Your task to perform on an android device: set the timer Image 0: 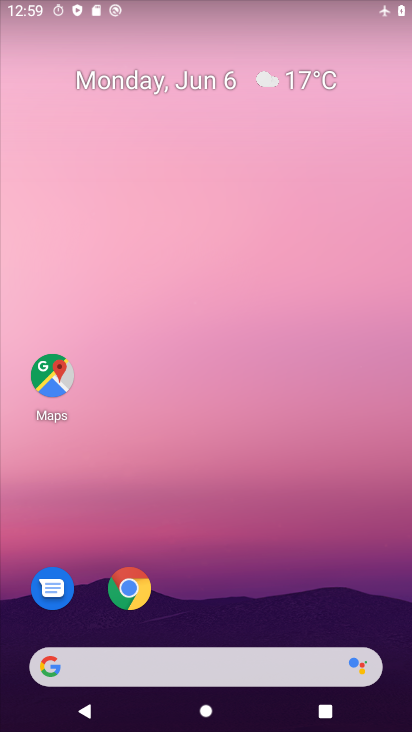
Step 0: drag from (268, 321) to (271, 8)
Your task to perform on an android device: set the timer Image 1: 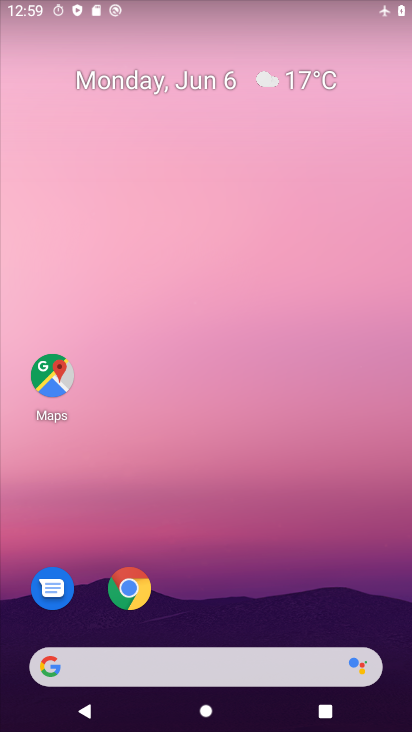
Step 1: drag from (234, 554) to (294, 150)
Your task to perform on an android device: set the timer Image 2: 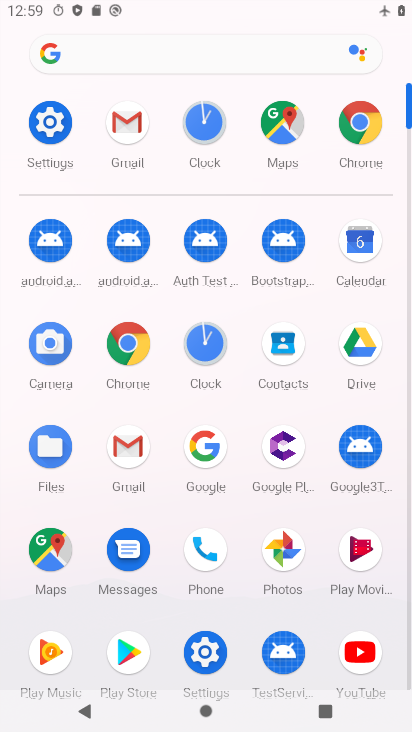
Step 2: click (204, 347)
Your task to perform on an android device: set the timer Image 3: 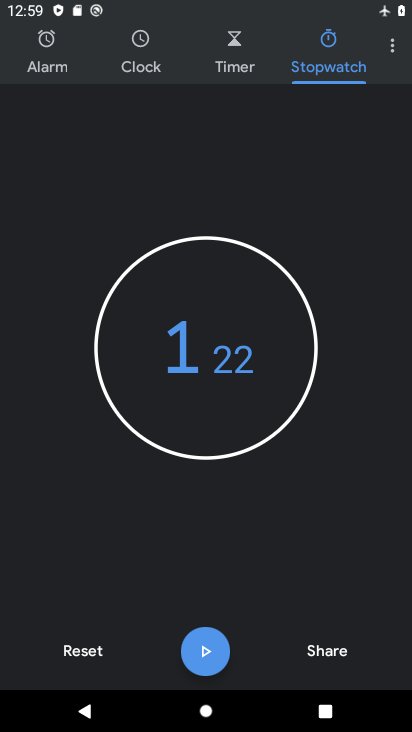
Step 3: click (252, 39)
Your task to perform on an android device: set the timer Image 4: 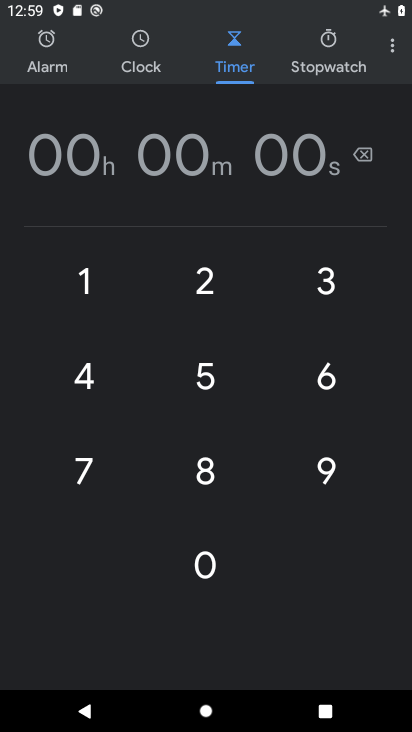
Step 4: click (215, 375)
Your task to perform on an android device: set the timer Image 5: 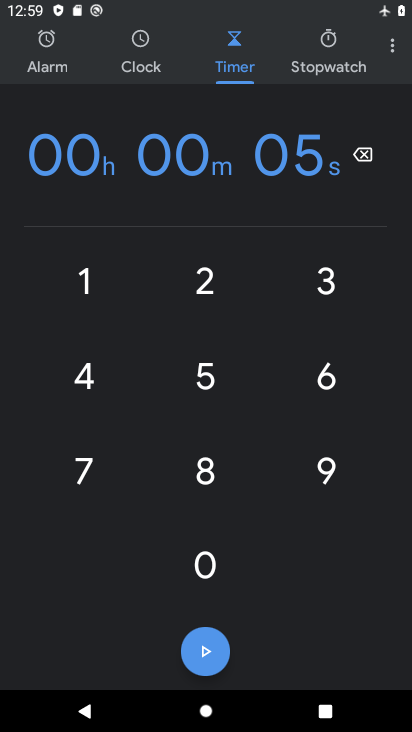
Step 5: task complete